Your task to perform on an android device: Open the web browser Image 0: 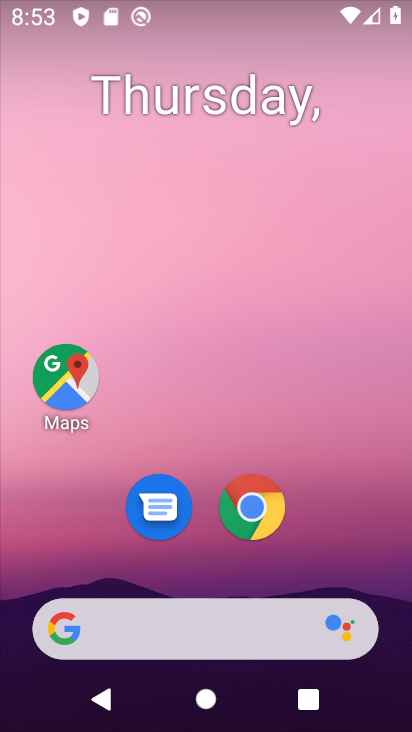
Step 0: drag from (197, 568) to (299, 16)
Your task to perform on an android device: Open the web browser Image 1: 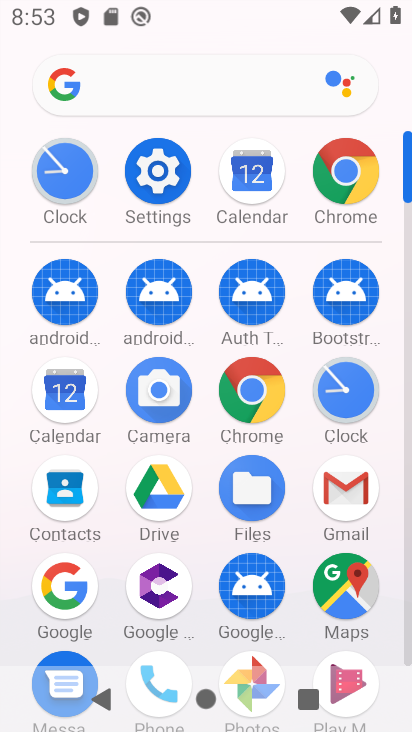
Step 1: click (267, 389)
Your task to perform on an android device: Open the web browser Image 2: 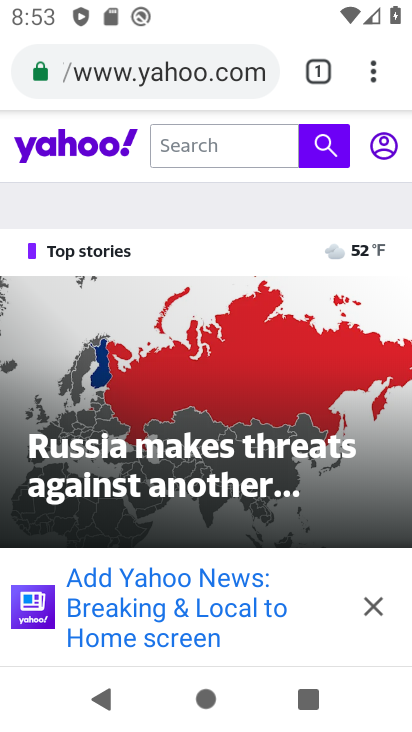
Step 2: task complete